Your task to perform on an android device: Do I have any events this weekend? Image 0: 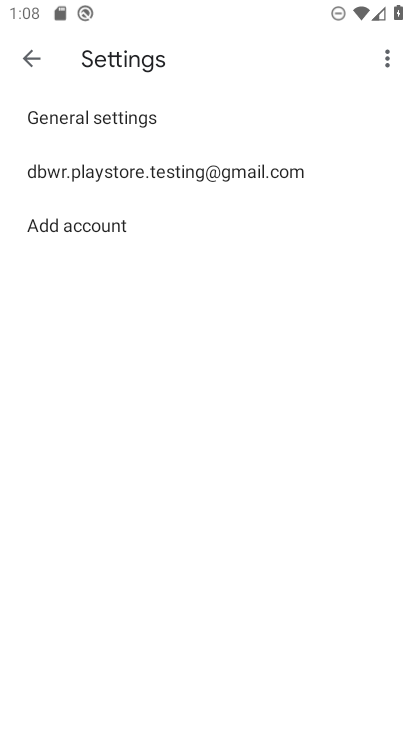
Step 0: drag from (218, 634) to (253, 173)
Your task to perform on an android device: Do I have any events this weekend? Image 1: 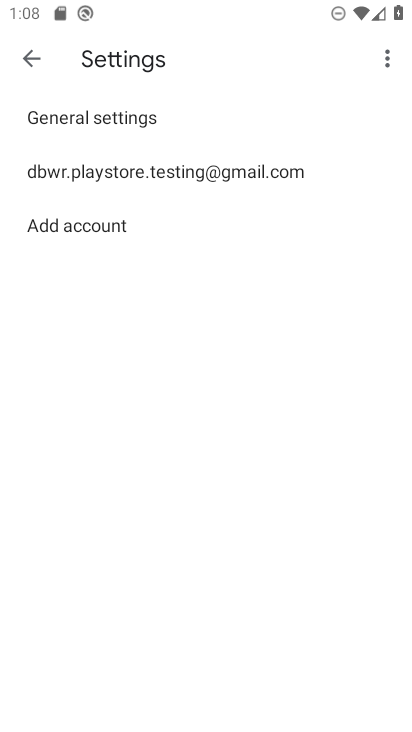
Step 1: press home button
Your task to perform on an android device: Do I have any events this weekend? Image 2: 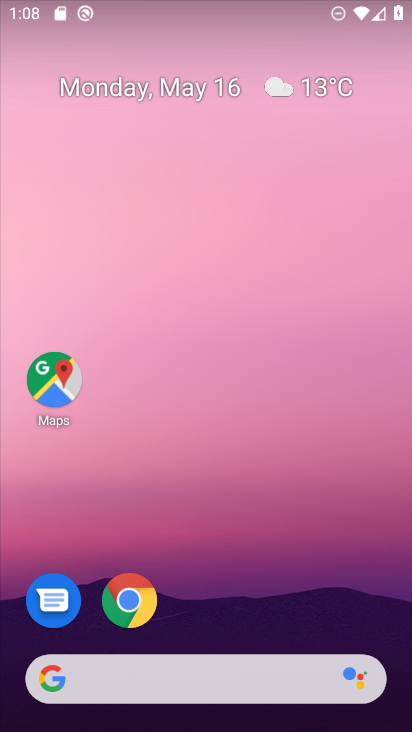
Step 2: drag from (219, 635) to (234, 125)
Your task to perform on an android device: Do I have any events this weekend? Image 3: 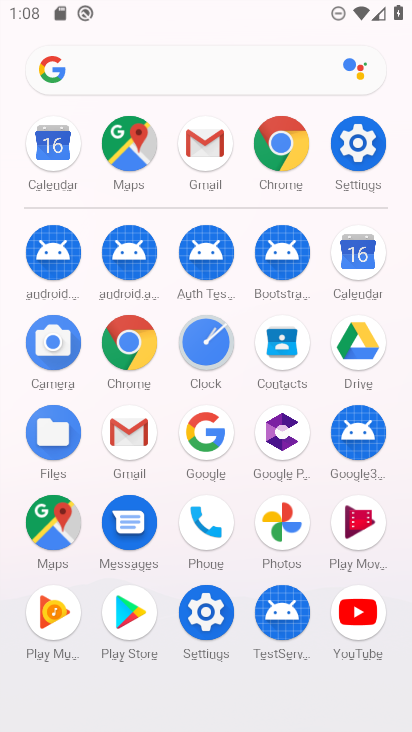
Step 3: click (354, 247)
Your task to perform on an android device: Do I have any events this weekend? Image 4: 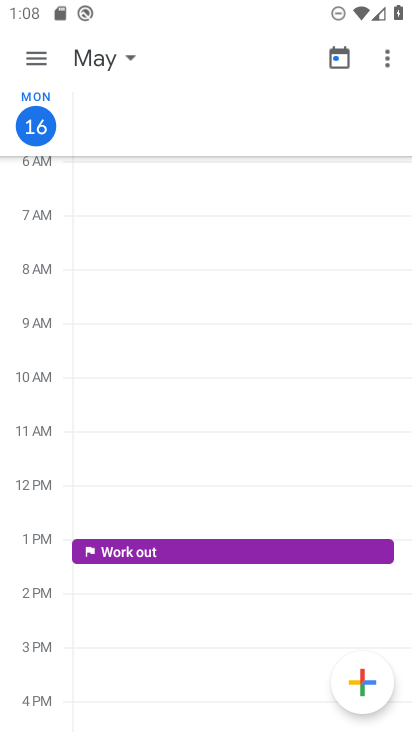
Step 4: click (54, 125)
Your task to perform on an android device: Do I have any events this weekend? Image 5: 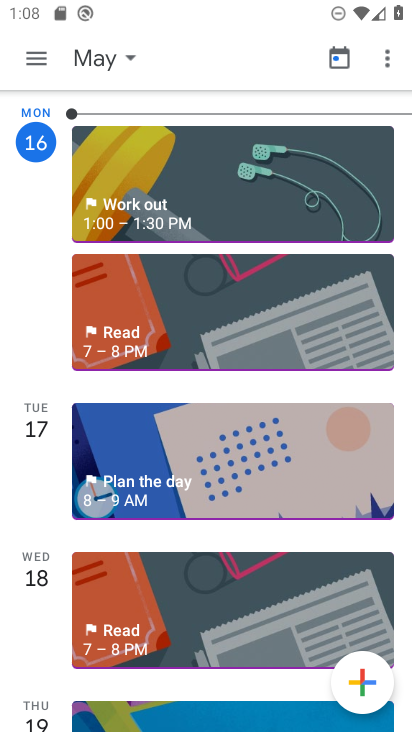
Step 5: task complete